Your task to perform on an android device: toggle data saver in the chrome app Image 0: 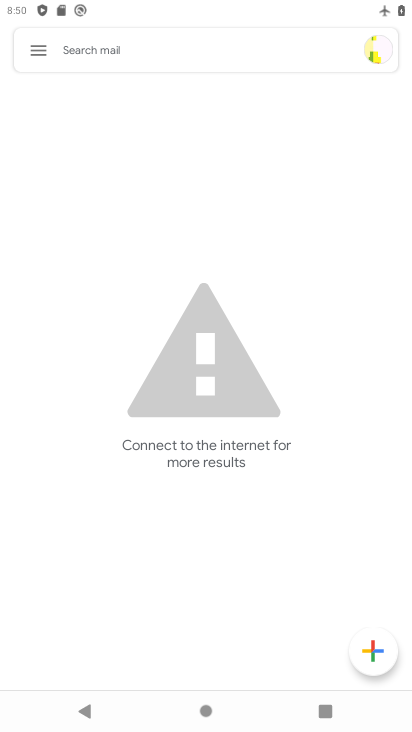
Step 0: press back button
Your task to perform on an android device: toggle data saver in the chrome app Image 1: 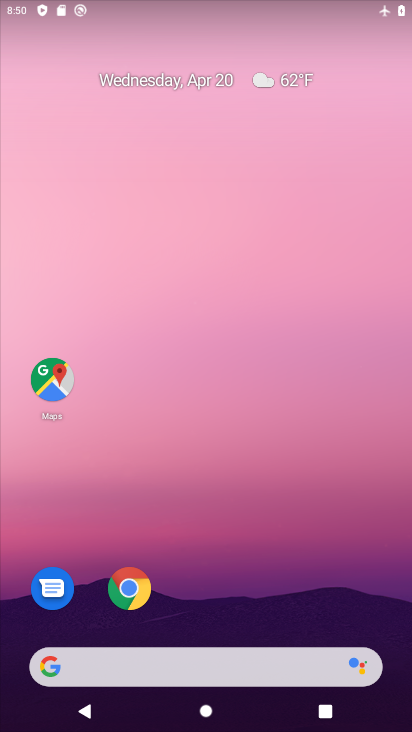
Step 1: drag from (308, 513) to (148, 12)
Your task to perform on an android device: toggle data saver in the chrome app Image 2: 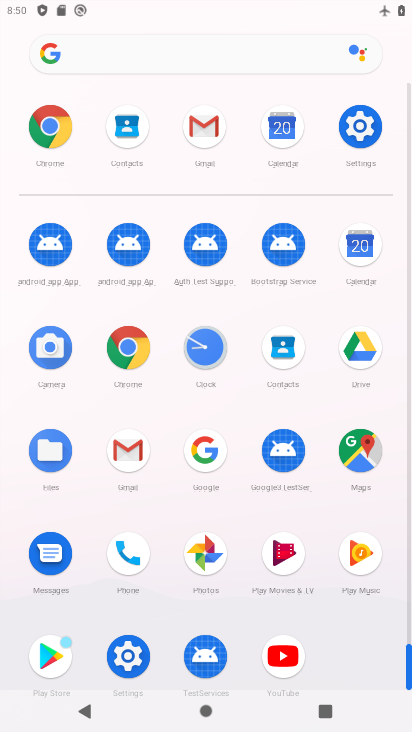
Step 2: drag from (10, 501) to (7, 259)
Your task to perform on an android device: toggle data saver in the chrome app Image 3: 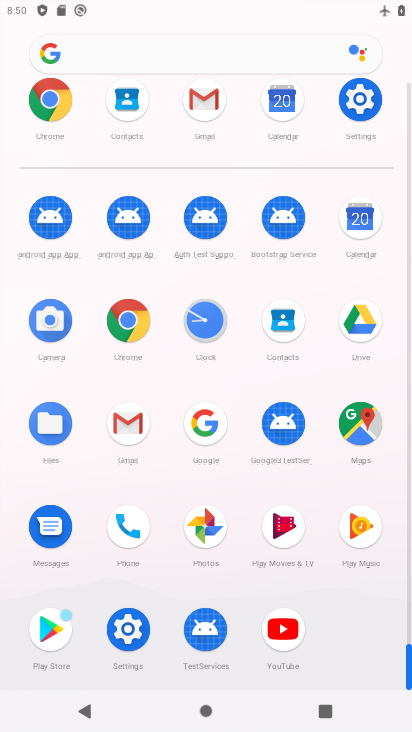
Step 3: click (127, 316)
Your task to perform on an android device: toggle data saver in the chrome app Image 4: 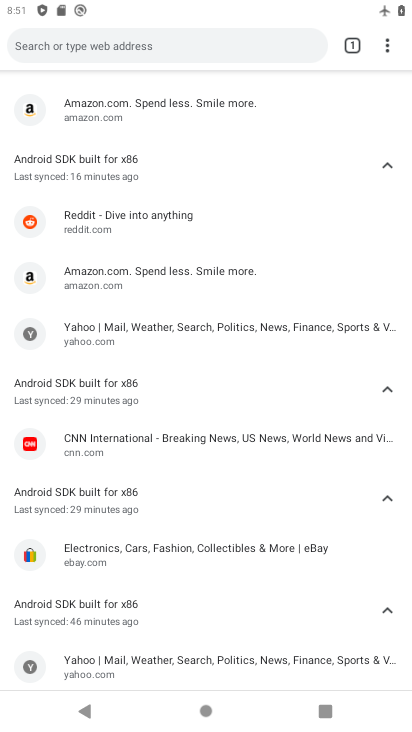
Step 4: drag from (388, 48) to (248, 376)
Your task to perform on an android device: toggle data saver in the chrome app Image 5: 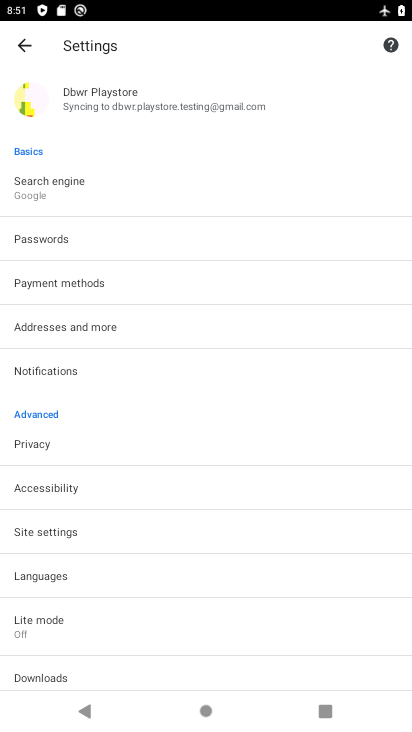
Step 5: drag from (229, 529) to (220, 216)
Your task to perform on an android device: toggle data saver in the chrome app Image 6: 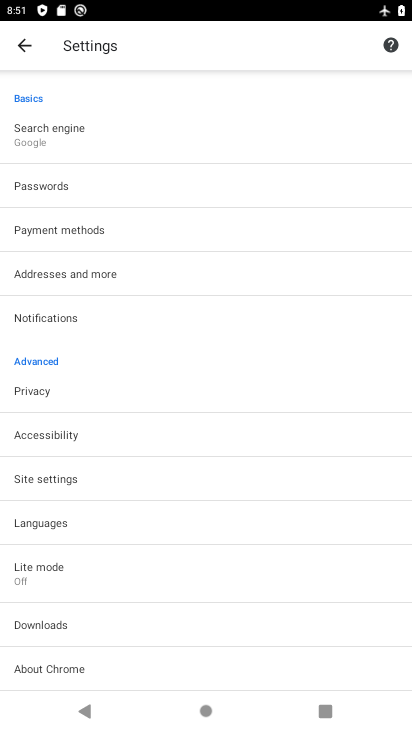
Step 6: click (73, 477)
Your task to perform on an android device: toggle data saver in the chrome app Image 7: 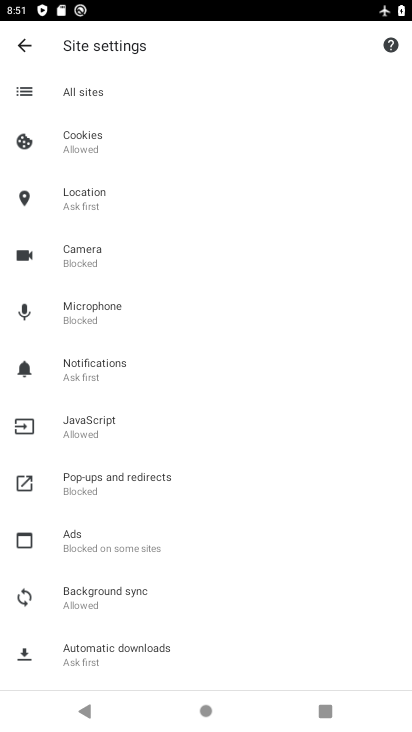
Step 7: click (17, 49)
Your task to perform on an android device: toggle data saver in the chrome app Image 8: 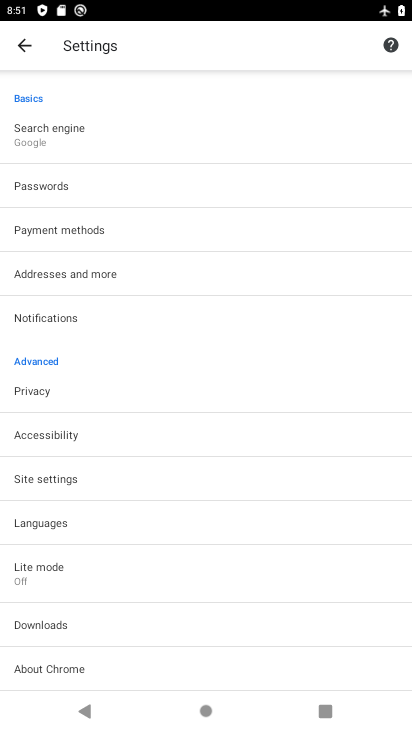
Step 8: click (55, 572)
Your task to perform on an android device: toggle data saver in the chrome app Image 9: 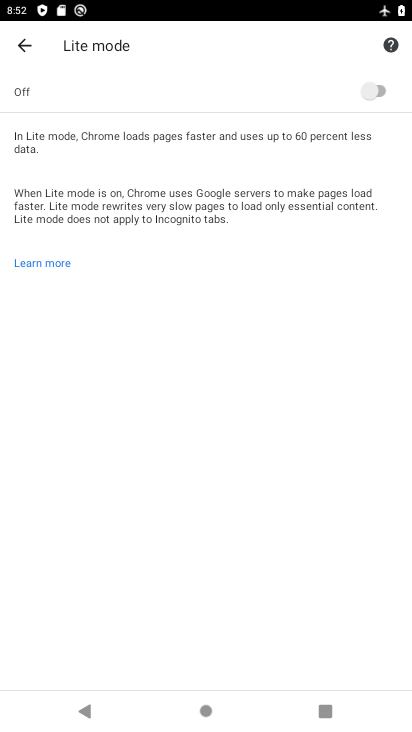
Step 9: click (376, 90)
Your task to perform on an android device: toggle data saver in the chrome app Image 10: 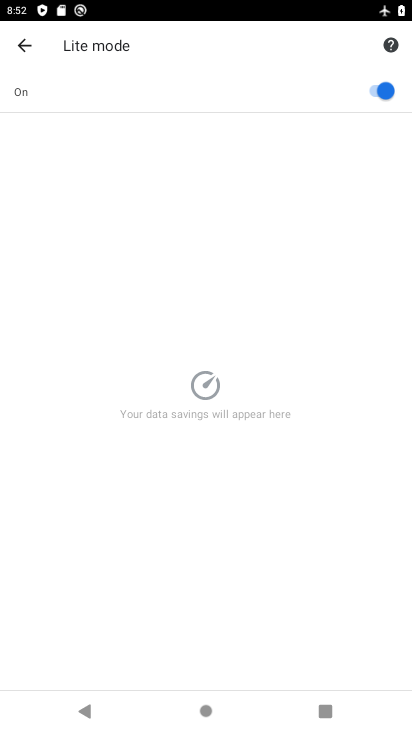
Step 10: task complete